Your task to perform on an android device: Open the web browser Image 0: 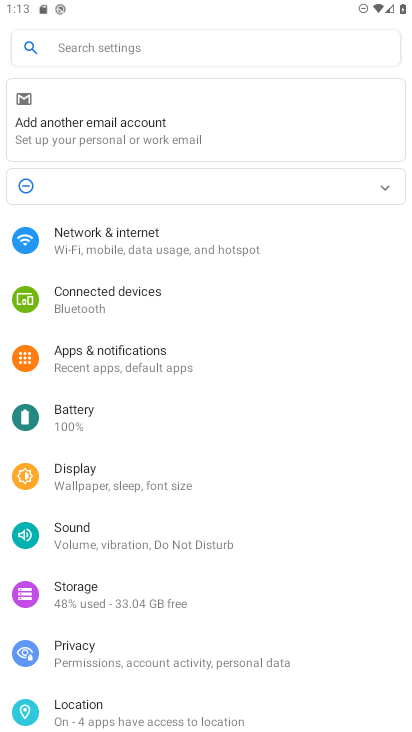
Step 0: press home button
Your task to perform on an android device: Open the web browser Image 1: 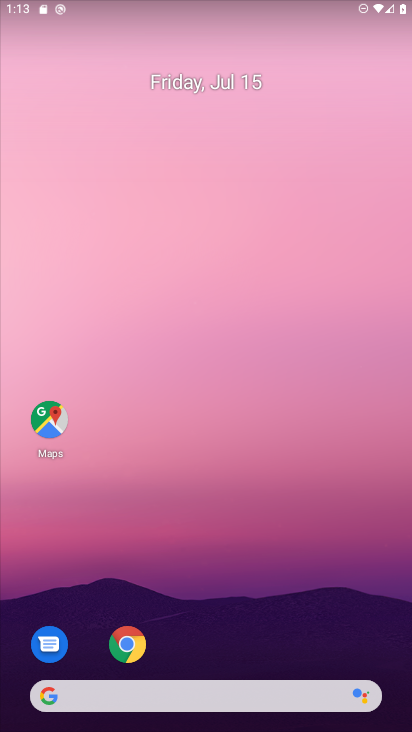
Step 1: click (129, 644)
Your task to perform on an android device: Open the web browser Image 2: 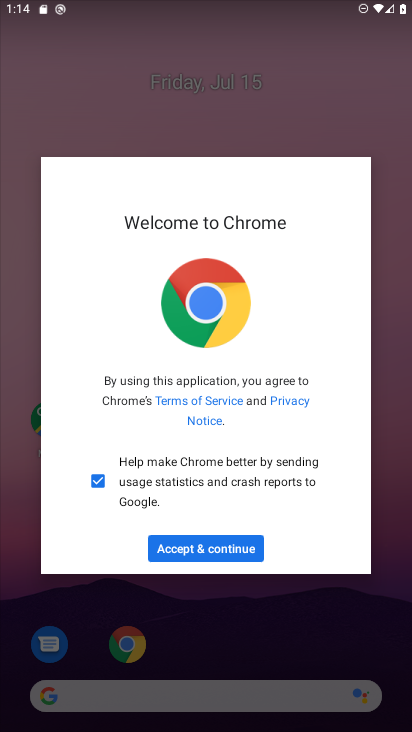
Step 2: click (238, 540)
Your task to perform on an android device: Open the web browser Image 3: 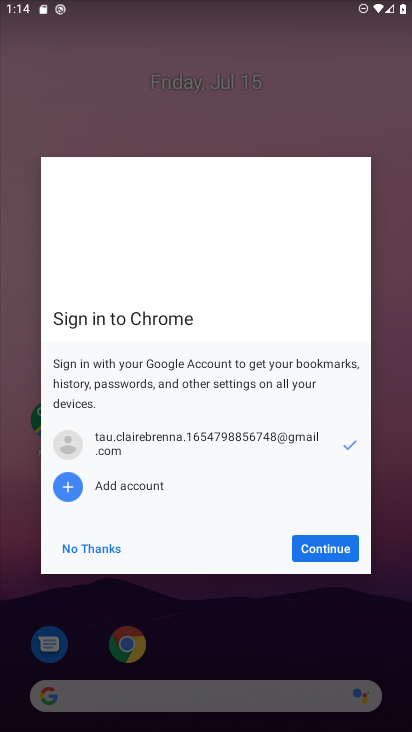
Step 3: click (336, 544)
Your task to perform on an android device: Open the web browser Image 4: 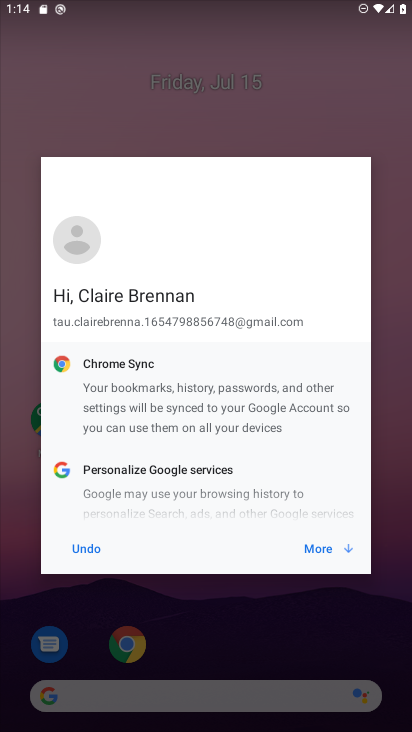
Step 4: click (333, 546)
Your task to perform on an android device: Open the web browser Image 5: 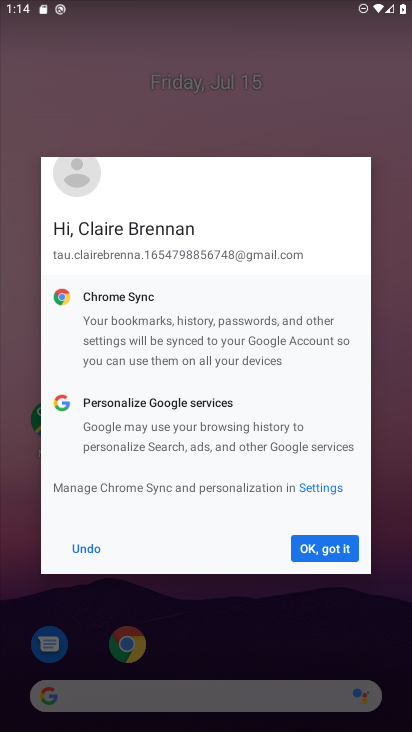
Step 5: click (333, 546)
Your task to perform on an android device: Open the web browser Image 6: 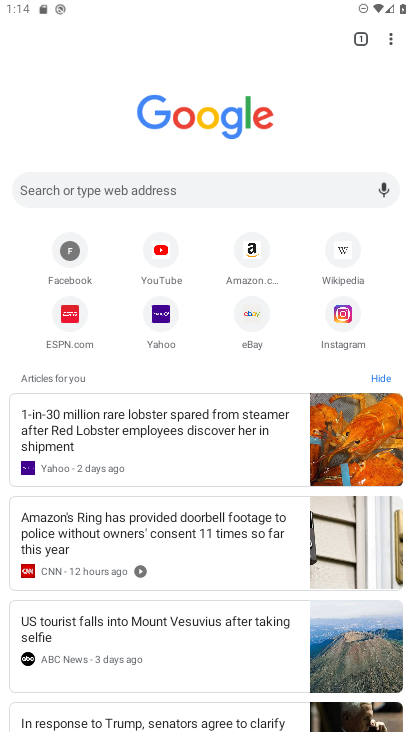
Step 6: task complete